Your task to perform on an android device: turn notification dots off Image 0: 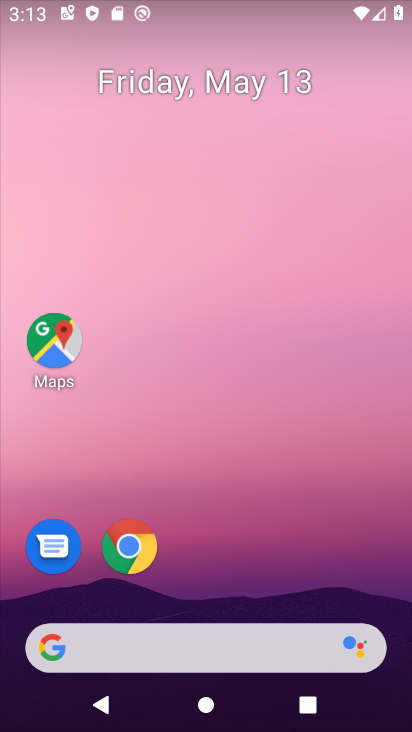
Step 0: drag from (222, 594) to (228, 103)
Your task to perform on an android device: turn notification dots off Image 1: 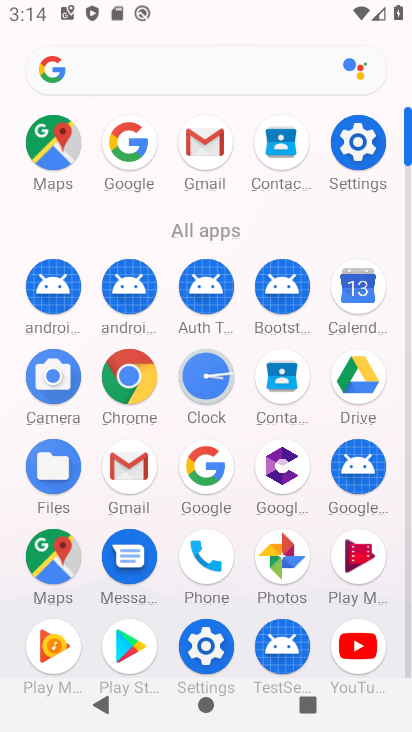
Step 1: click (358, 132)
Your task to perform on an android device: turn notification dots off Image 2: 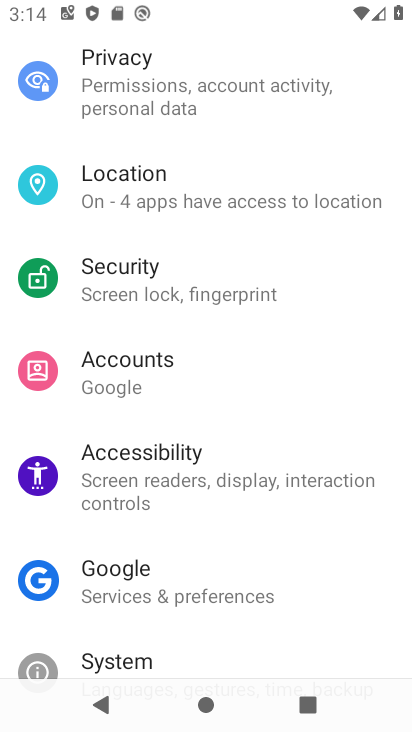
Step 2: drag from (193, 163) to (232, 690)
Your task to perform on an android device: turn notification dots off Image 3: 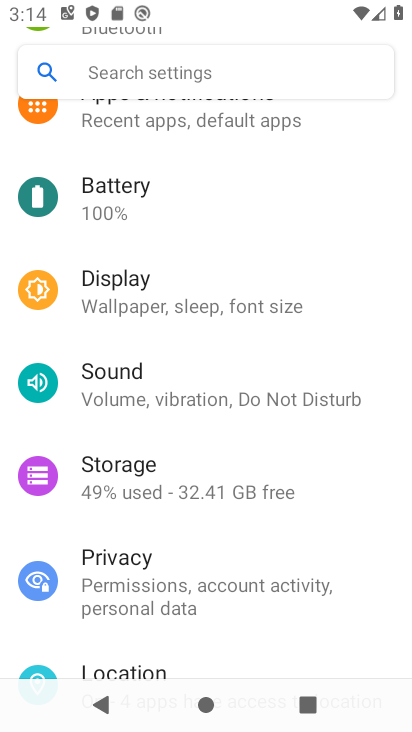
Step 3: drag from (237, 271) to (238, 663)
Your task to perform on an android device: turn notification dots off Image 4: 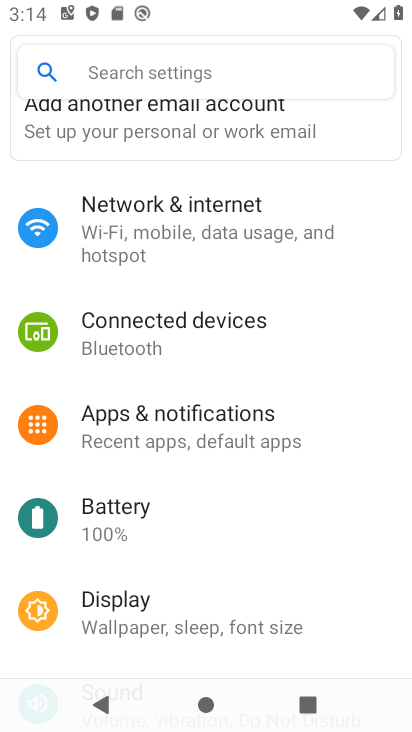
Step 4: click (181, 403)
Your task to perform on an android device: turn notification dots off Image 5: 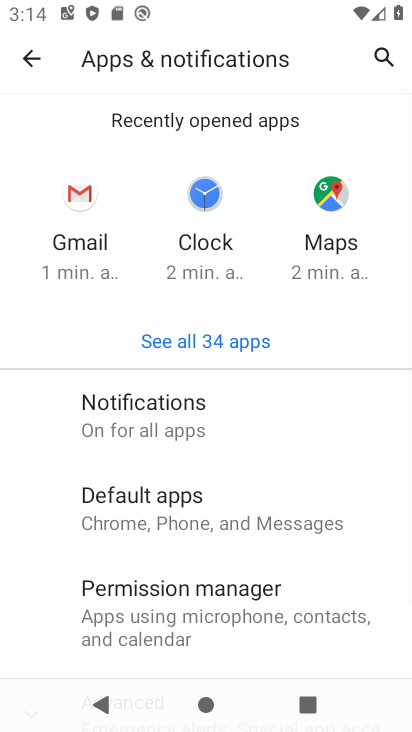
Step 5: drag from (182, 600) to (183, 299)
Your task to perform on an android device: turn notification dots off Image 6: 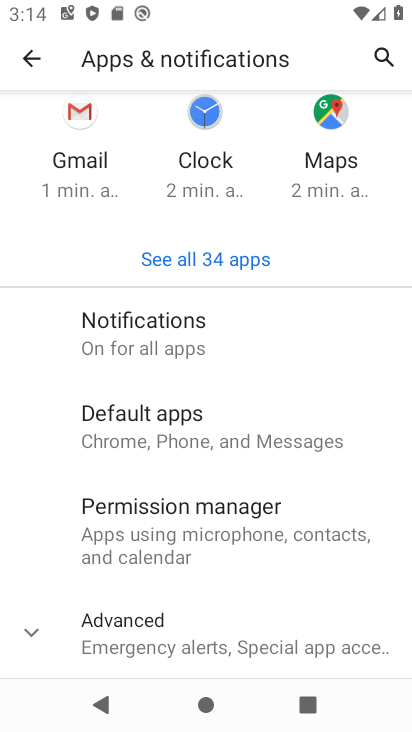
Step 6: click (175, 324)
Your task to perform on an android device: turn notification dots off Image 7: 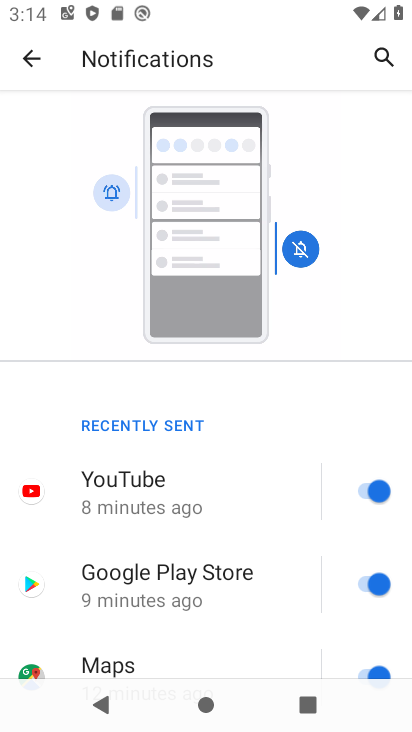
Step 7: drag from (132, 652) to (209, 217)
Your task to perform on an android device: turn notification dots off Image 8: 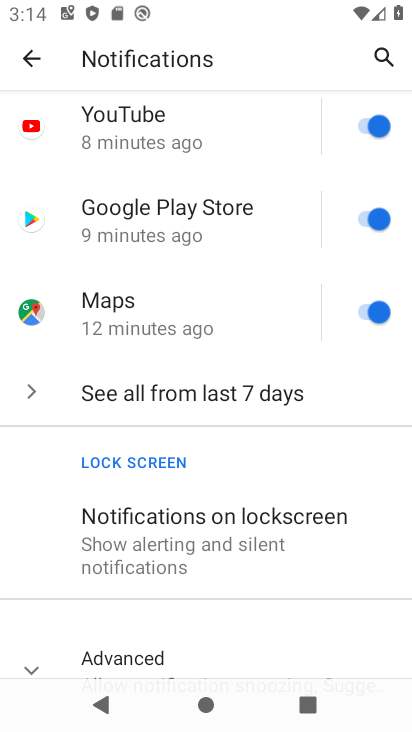
Step 8: click (209, 553)
Your task to perform on an android device: turn notification dots off Image 9: 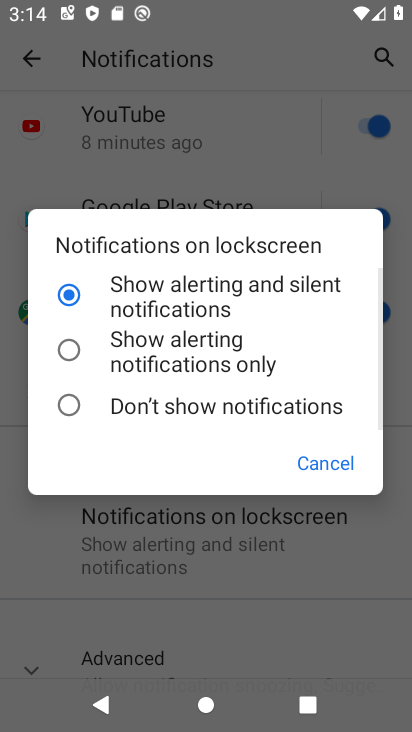
Step 9: click (322, 464)
Your task to perform on an android device: turn notification dots off Image 10: 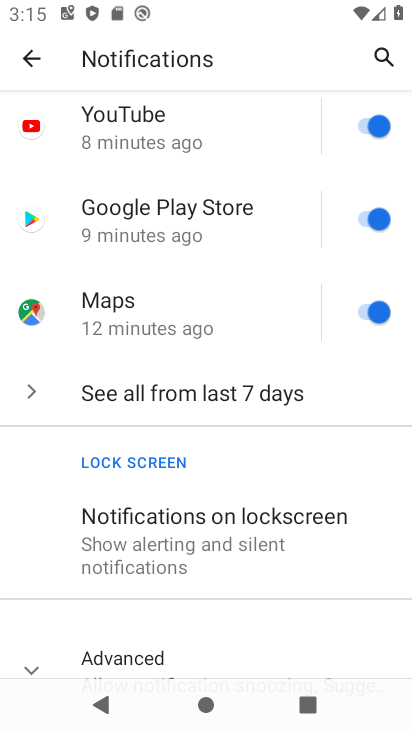
Step 10: click (171, 628)
Your task to perform on an android device: turn notification dots off Image 11: 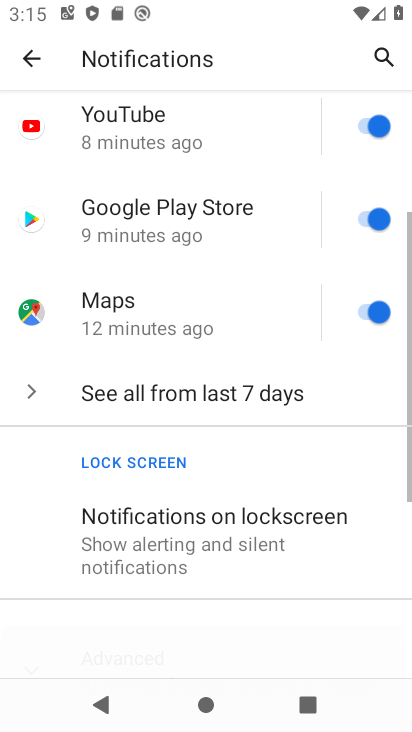
Step 11: task complete